Your task to perform on an android device: clear history in the chrome app Image 0: 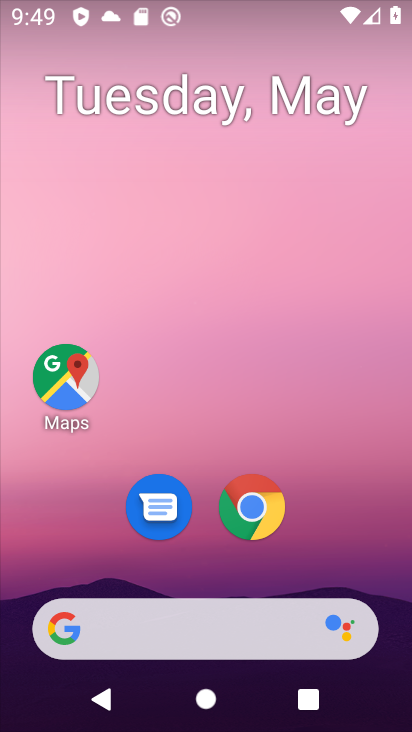
Step 0: click (259, 508)
Your task to perform on an android device: clear history in the chrome app Image 1: 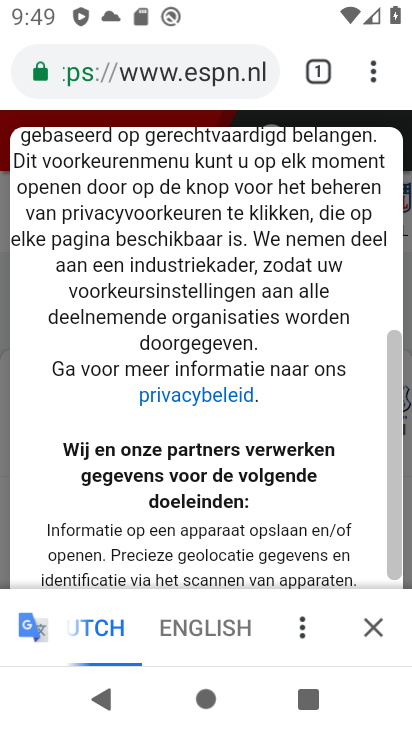
Step 1: click (385, 62)
Your task to perform on an android device: clear history in the chrome app Image 2: 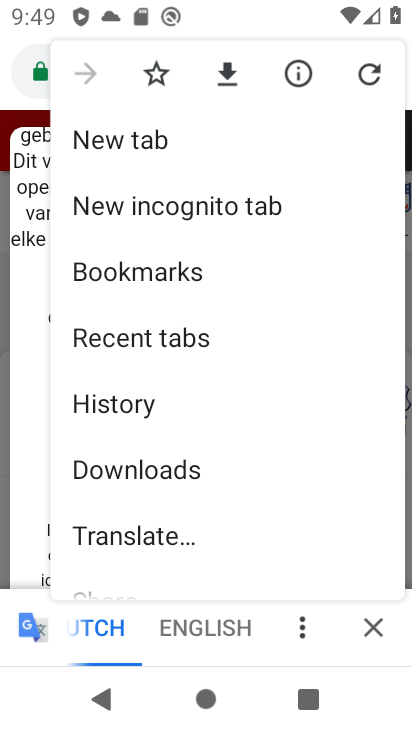
Step 2: click (245, 406)
Your task to perform on an android device: clear history in the chrome app Image 3: 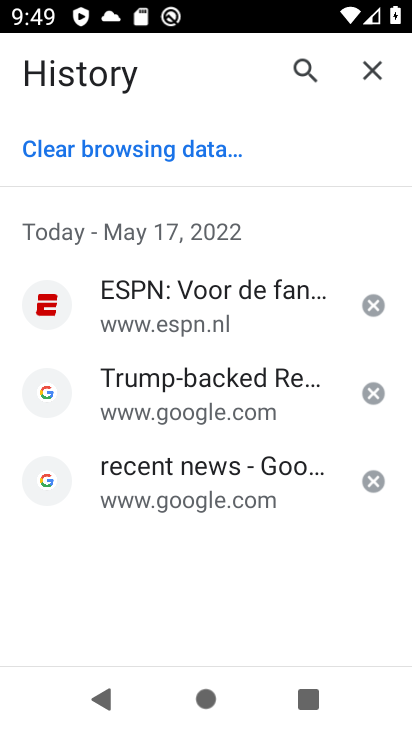
Step 3: click (177, 148)
Your task to perform on an android device: clear history in the chrome app Image 4: 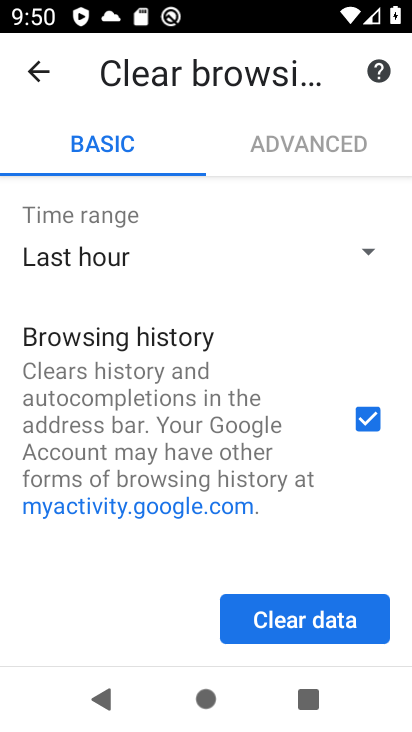
Step 4: click (308, 620)
Your task to perform on an android device: clear history in the chrome app Image 5: 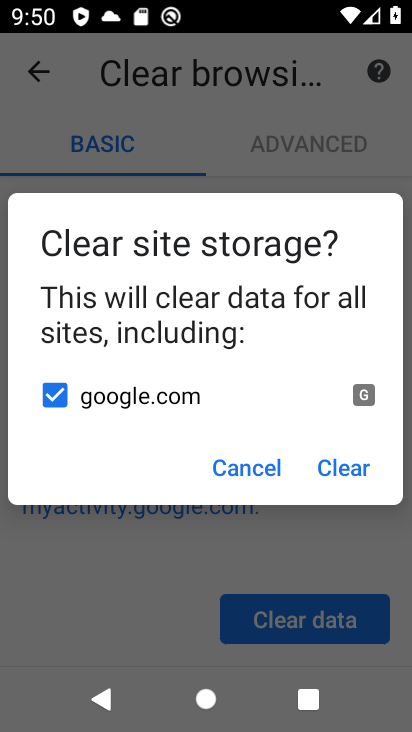
Step 5: click (344, 477)
Your task to perform on an android device: clear history in the chrome app Image 6: 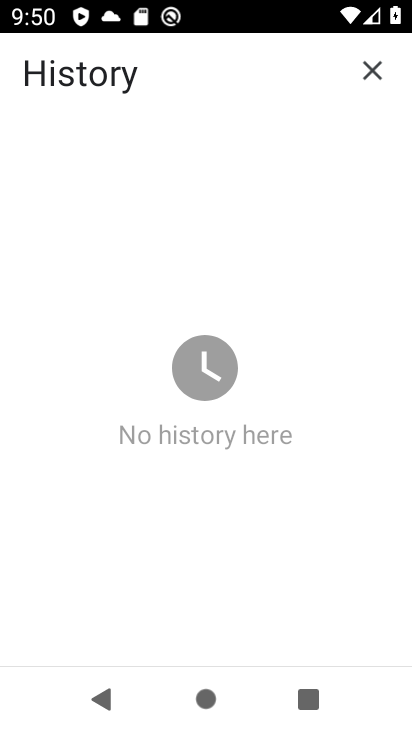
Step 6: task complete